Your task to perform on an android device: check the backup settings in the google photos Image 0: 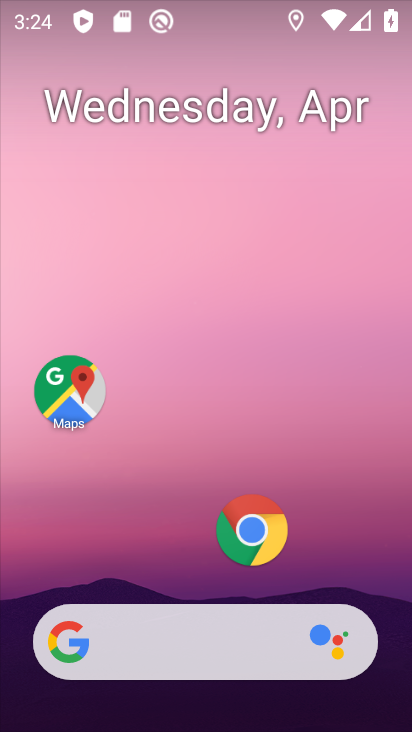
Step 0: drag from (165, 477) to (285, 23)
Your task to perform on an android device: check the backup settings in the google photos Image 1: 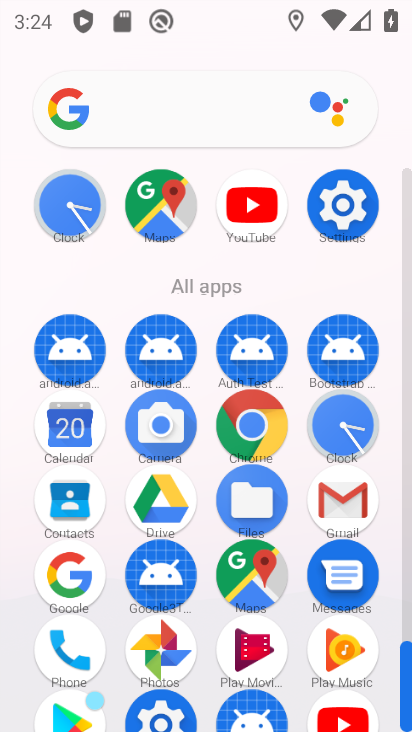
Step 1: click (167, 659)
Your task to perform on an android device: check the backup settings in the google photos Image 2: 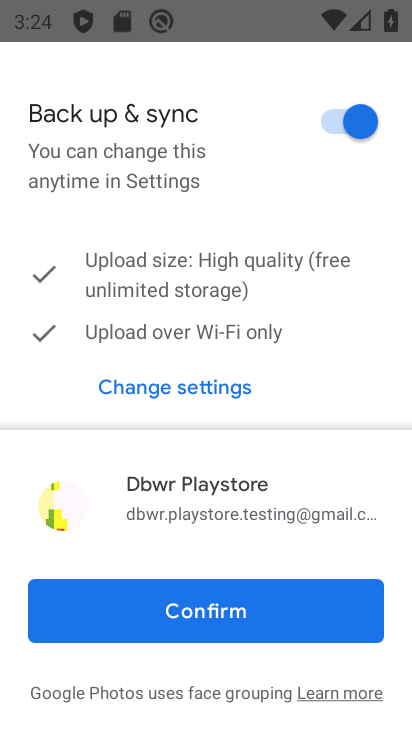
Step 2: click (209, 620)
Your task to perform on an android device: check the backup settings in the google photos Image 3: 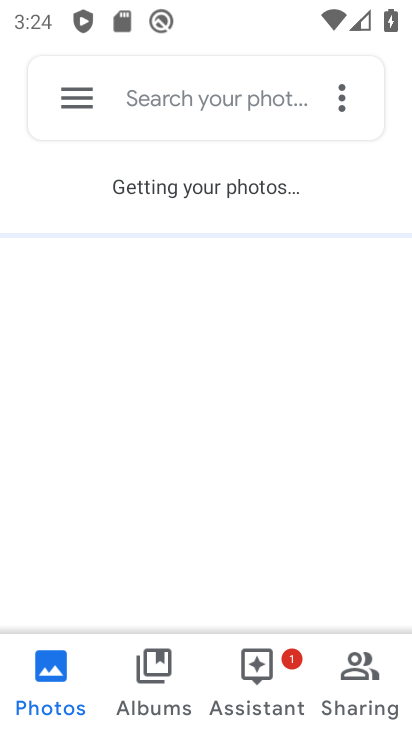
Step 3: click (71, 89)
Your task to perform on an android device: check the backup settings in the google photos Image 4: 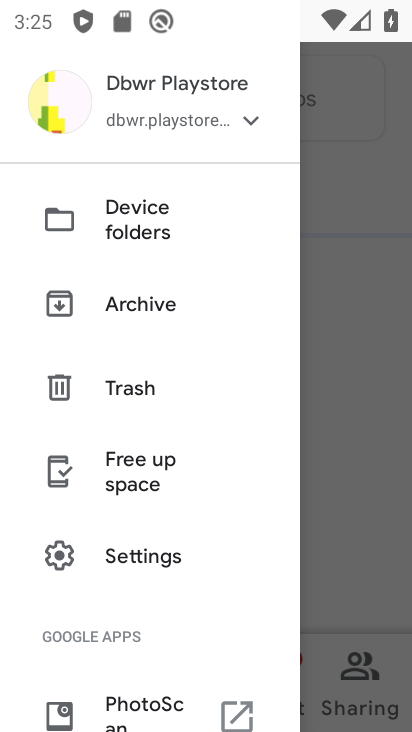
Step 4: click (125, 541)
Your task to perform on an android device: check the backup settings in the google photos Image 5: 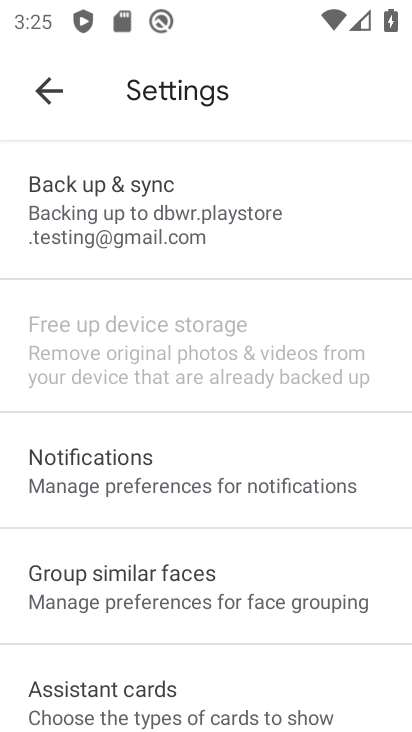
Step 5: click (215, 196)
Your task to perform on an android device: check the backup settings in the google photos Image 6: 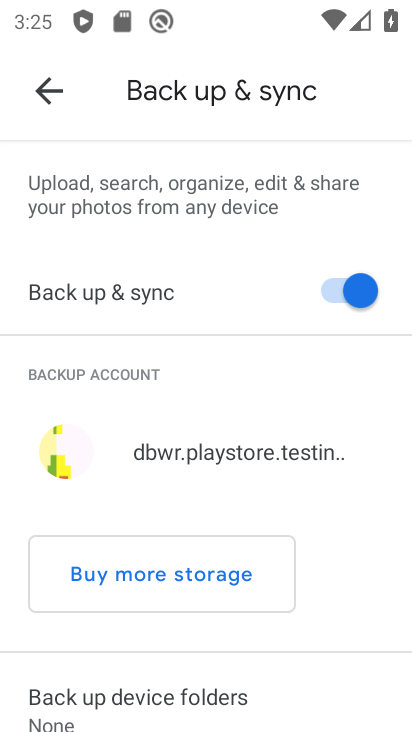
Step 6: task complete